Your task to perform on an android device: What's the weather going to be tomorrow? Image 0: 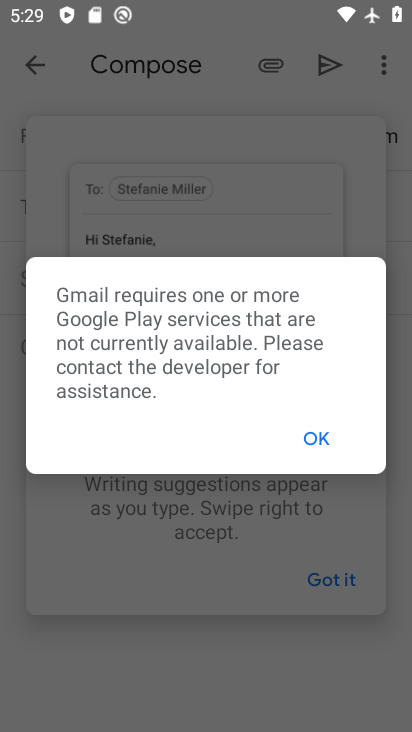
Step 0: press home button
Your task to perform on an android device: What's the weather going to be tomorrow? Image 1: 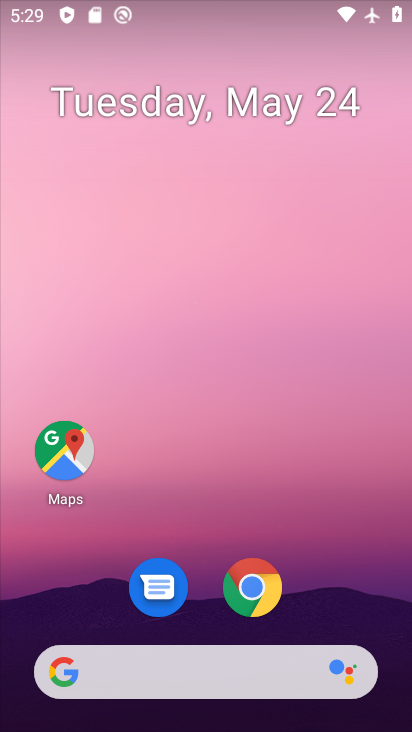
Step 1: drag from (342, 502) to (205, 7)
Your task to perform on an android device: What's the weather going to be tomorrow? Image 2: 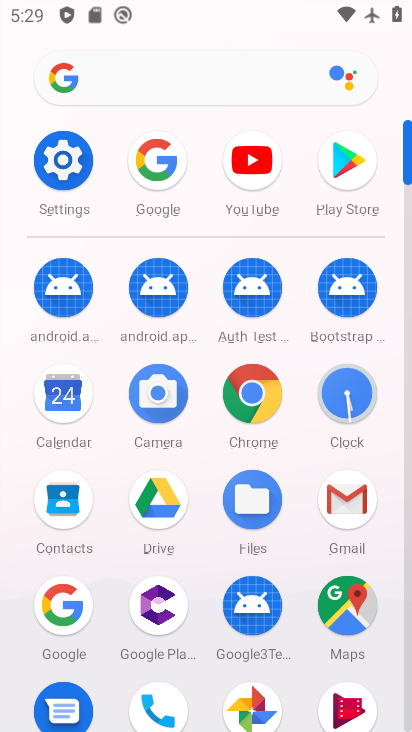
Step 2: click (53, 610)
Your task to perform on an android device: What's the weather going to be tomorrow? Image 3: 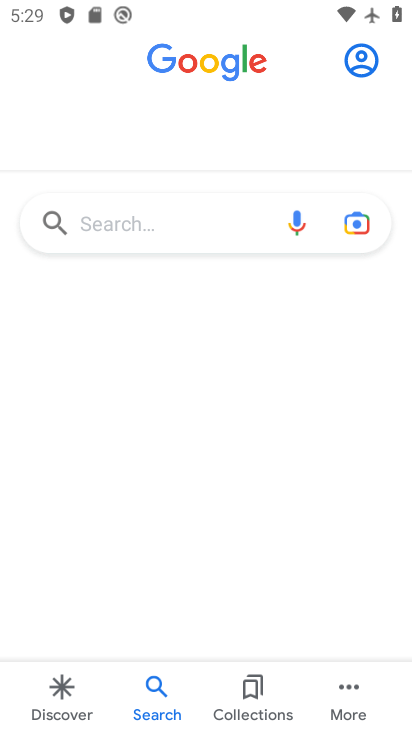
Step 3: click (152, 196)
Your task to perform on an android device: What's the weather going to be tomorrow? Image 4: 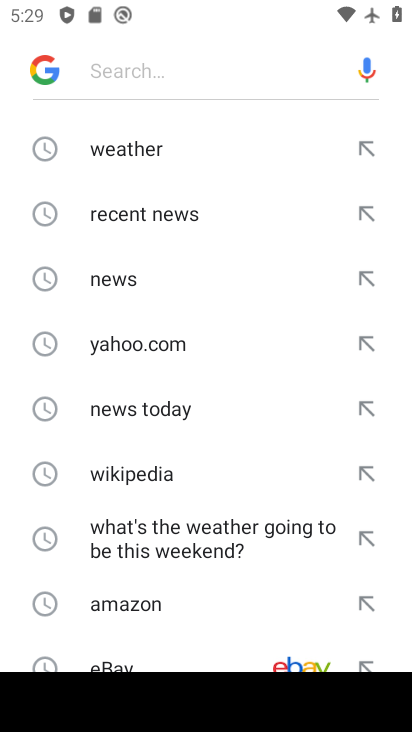
Step 4: click (179, 158)
Your task to perform on an android device: What's the weather going to be tomorrow? Image 5: 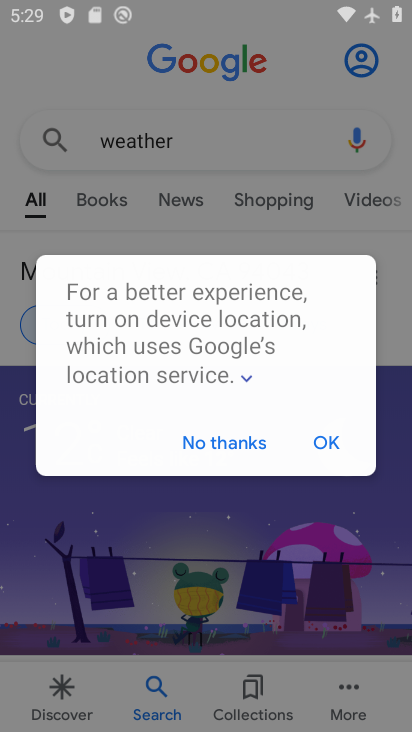
Step 5: click (183, 316)
Your task to perform on an android device: What's the weather going to be tomorrow? Image 6: 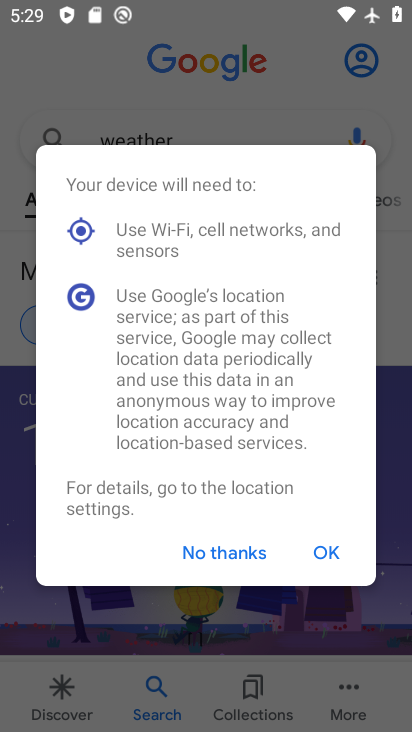
Step 6: click (226, 553)
Your task to perform on an android device: What's the weather going to be tomorrow? Image 7: 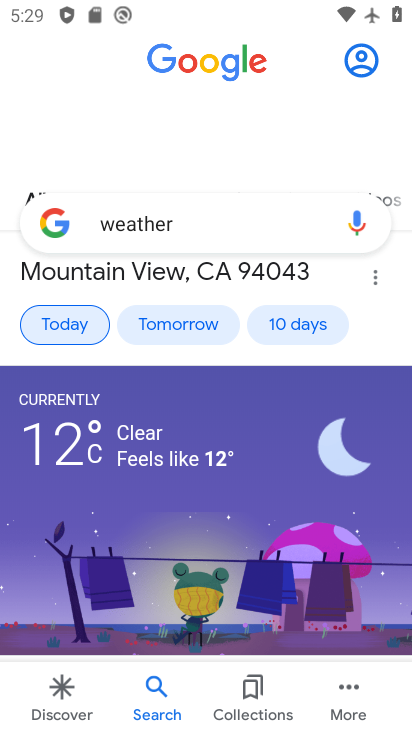
Step 7: click (176, 327)
Your task to perform on an android device: What's the weather going to be tomorrow? Image 8: 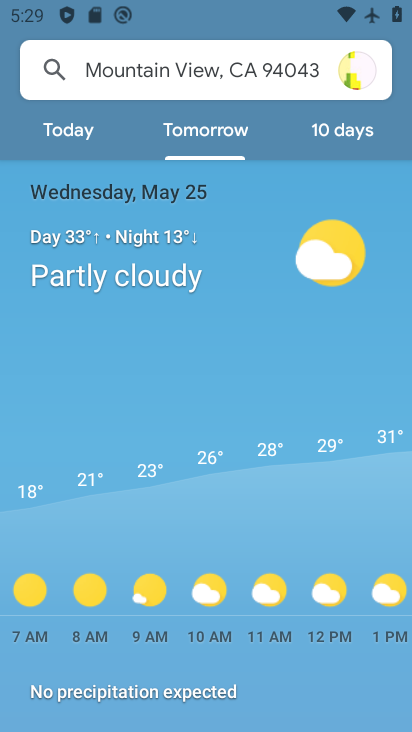
Step 8: task complete